Your task to perform on an android device: Open internet settings Image 0: 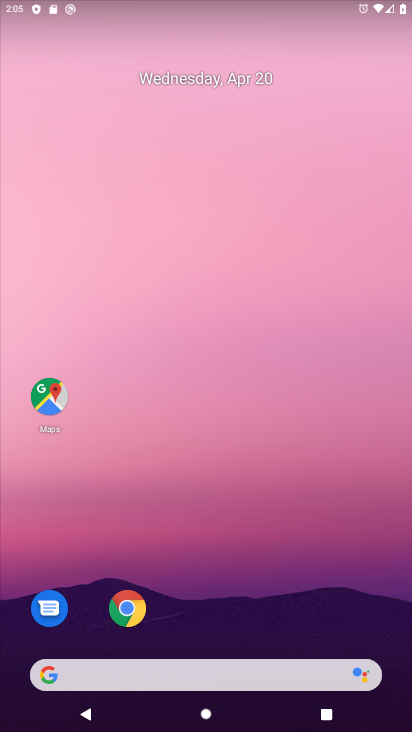
Step 0: drag from (245, 543) to (272, 56)
Your task to perform on an android device: Open internet settings Image 1: 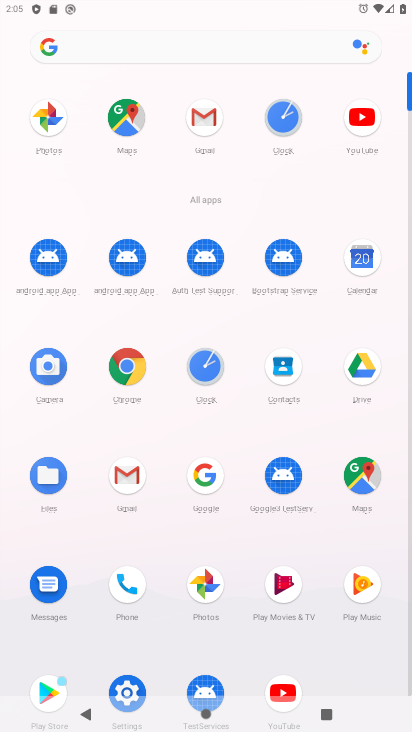
Step 1: drag from (131, 659) to (154, 520)
Your task to perform on an android device: Open internet settings Image 2: 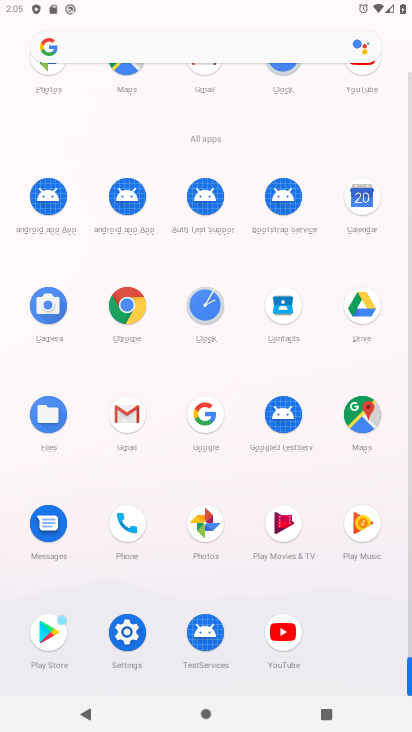
Step 2: click (132, 636)
Your task to perform on an android device: Open internet settings Image 3: 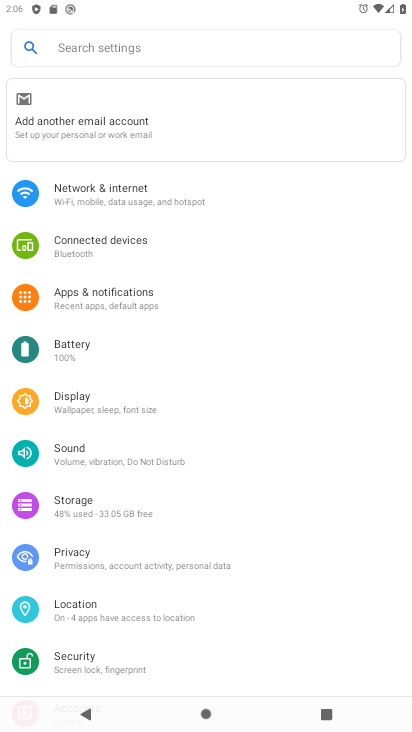
Step 3: click (58, 199)
Your task to perform on an android device: Open internet settings Image 4: 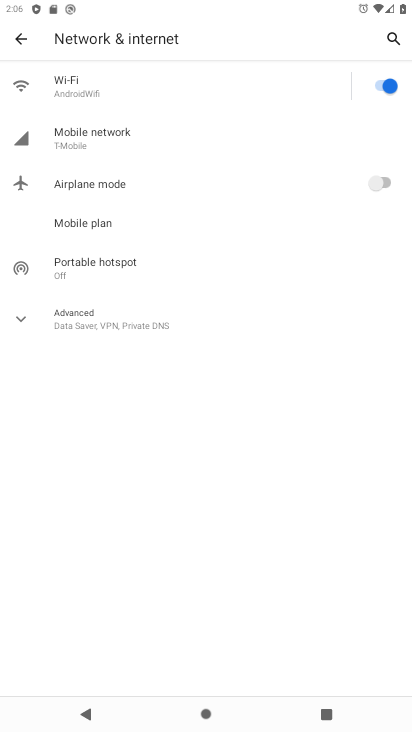
Step 4: click (97, 141)
Your task to perform on an android device: Open internet settings Image 5: 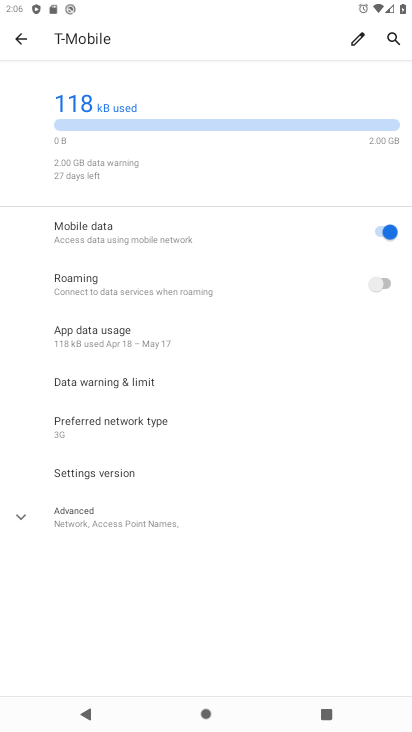
Step 5: task complete